Your task to perform on an android device: change the clock display to analog Image 0: 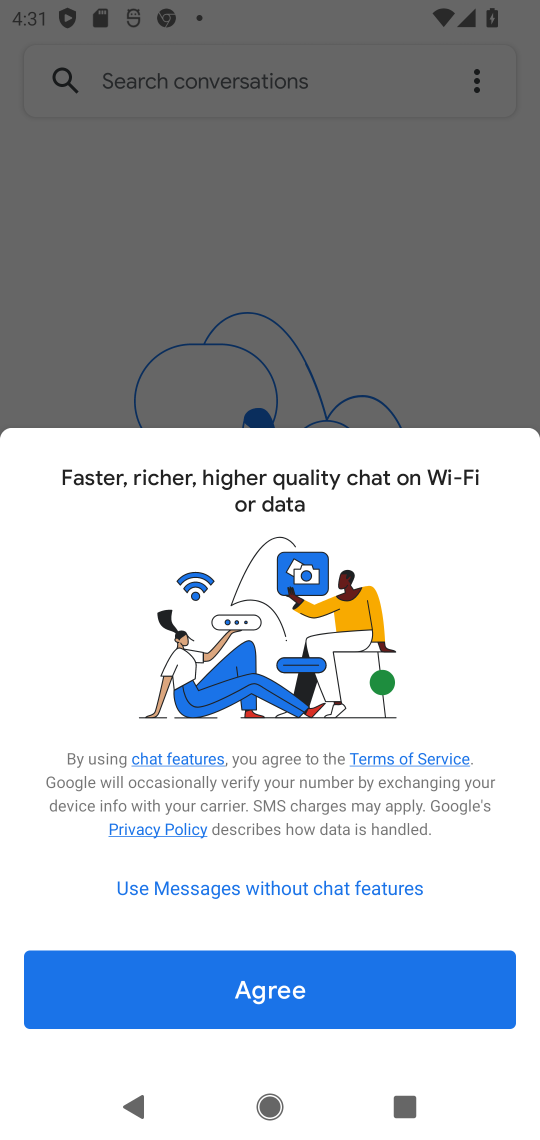
Step 0: press home button
Your task to perform on an android device: change the clock display to analog Image 1: 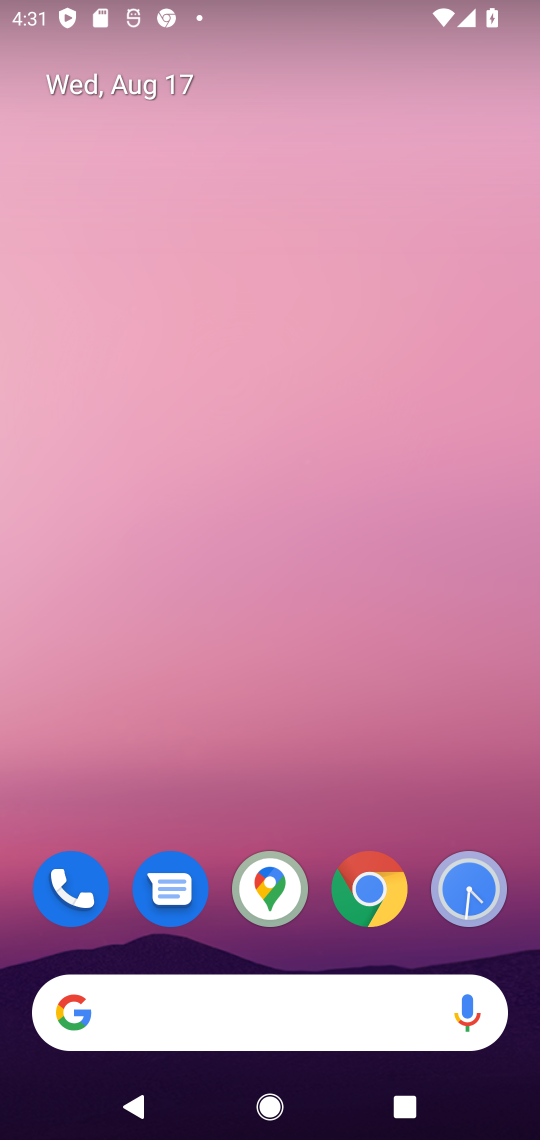
Step 1: click (474, 878)
Your task to perform on an android device: change the clock display to analog Image 2: 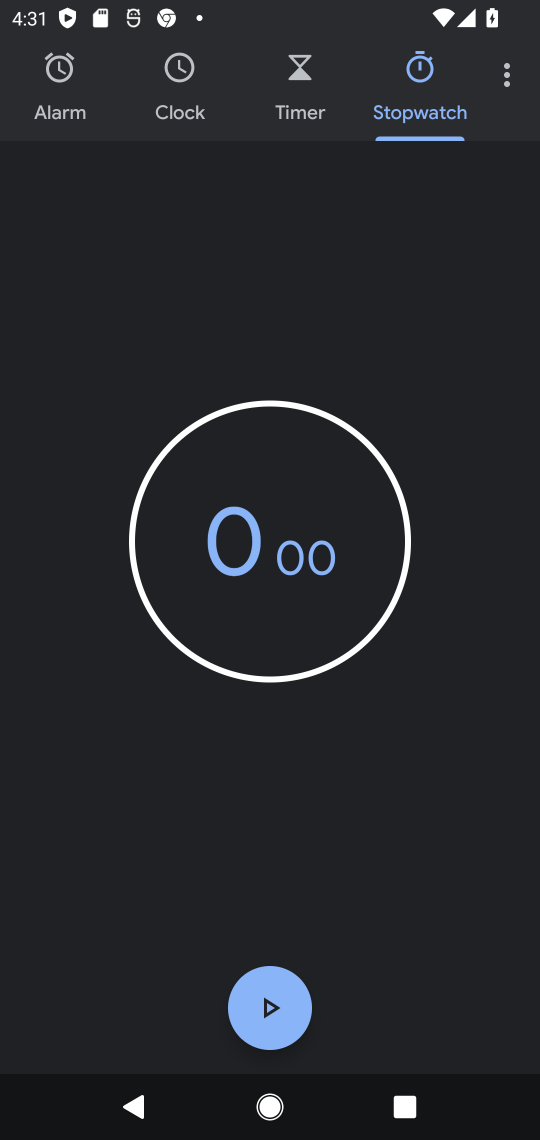
Step 2: click (507, 78)
Your task to perform on an android device: change the clock display to analog Image 3: 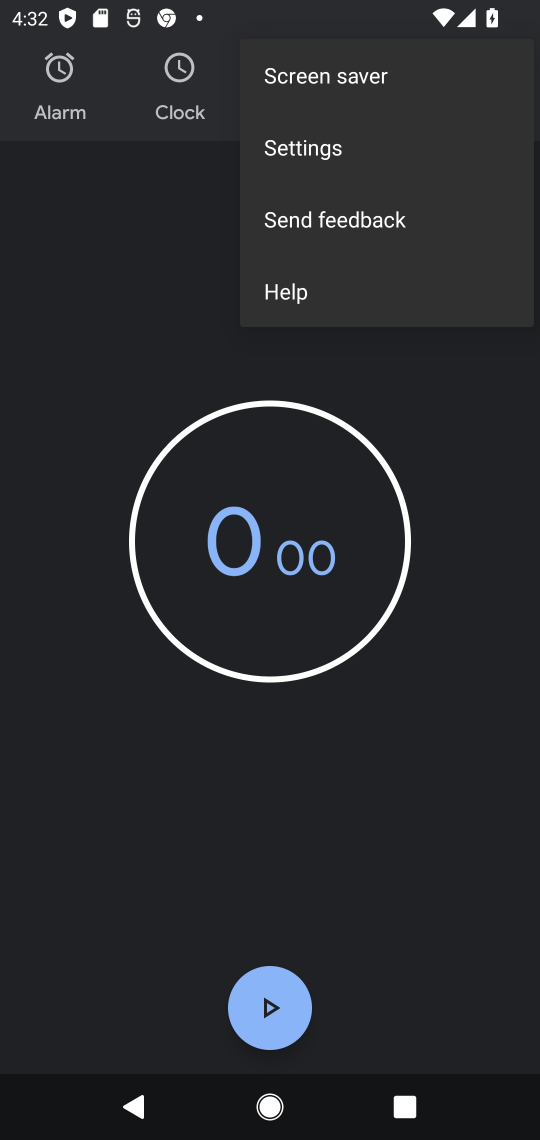
Step 3: click (310, 151)
Your task to perform on an android device: change the clock display to analog Image 4: 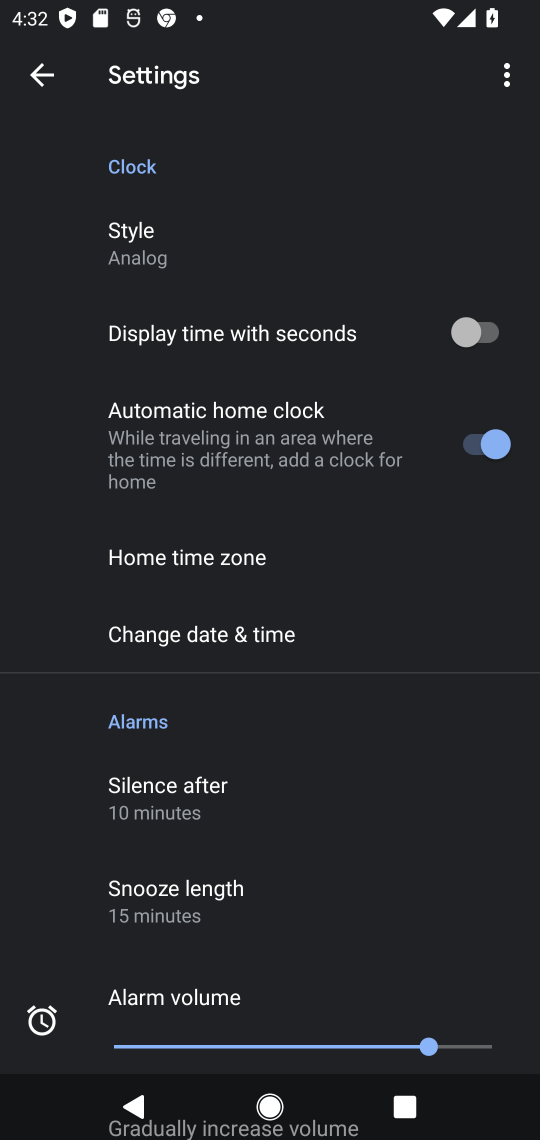
Step 4: click (142, 232)
Your task to perform on an android device: change the clock display to analog Image 5: 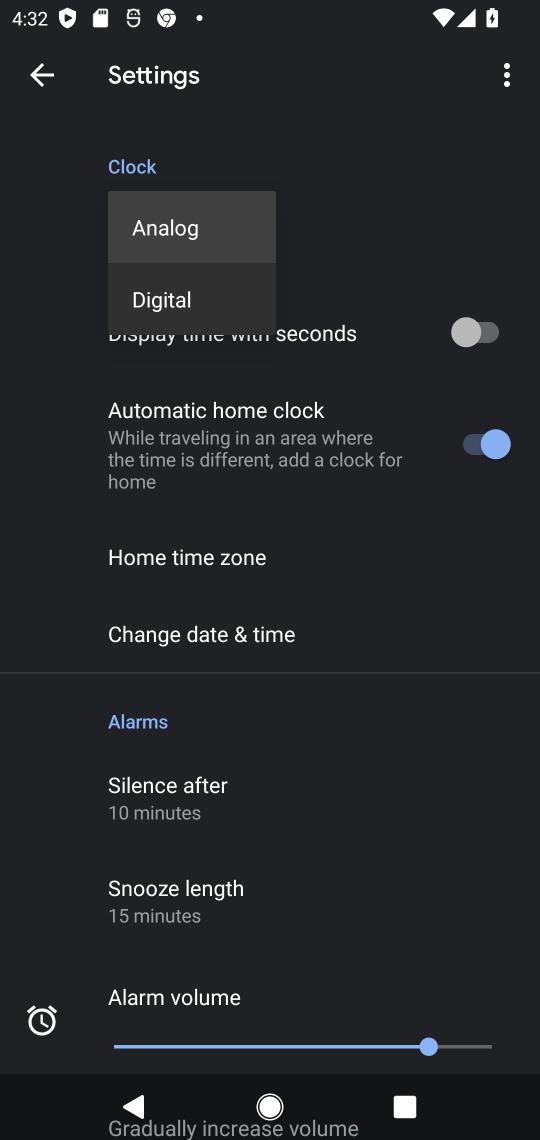
Step 5: click (160, 243)
Your task to perform on an android device: change the clock display to analog Image 6: 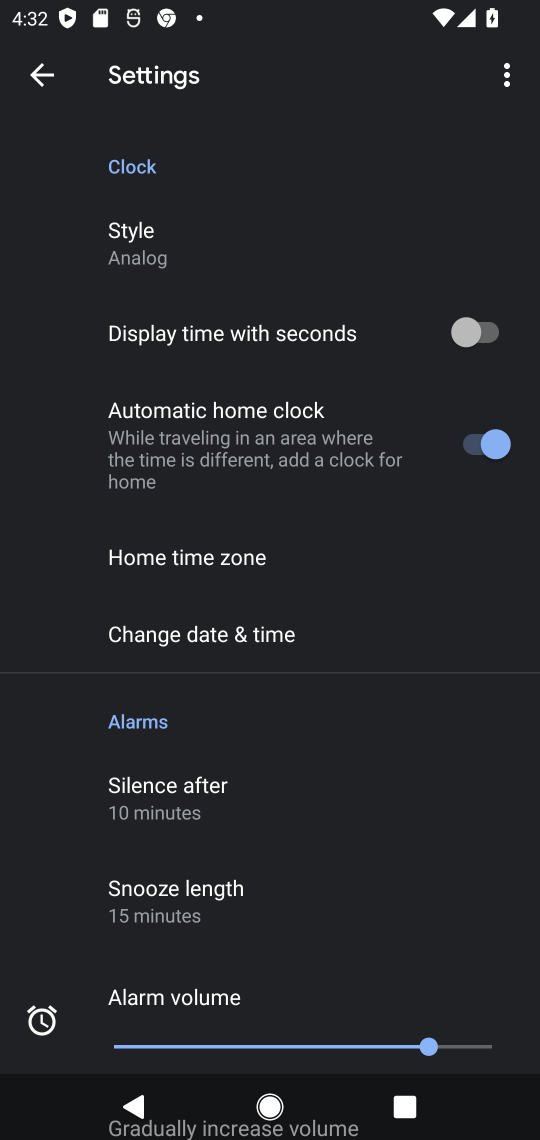
Step 6: task complete